Your task to perform on an android device: Open Youtube and go to the subscriptions tab Image 0: 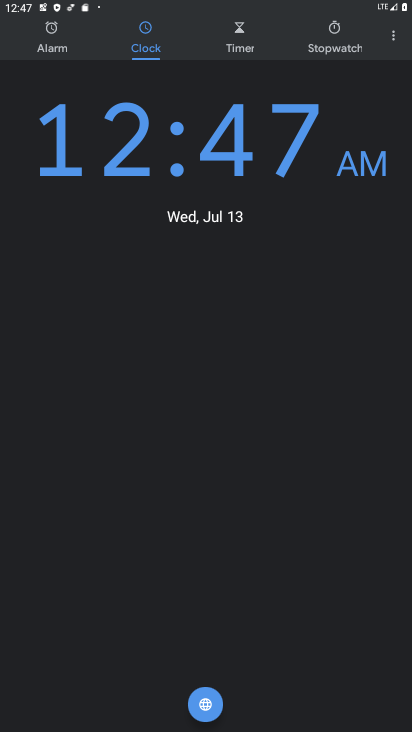
Step 0: press home button
Your task to perform on an android device: Open Youtube and go to the subscriptions tab Image 1: 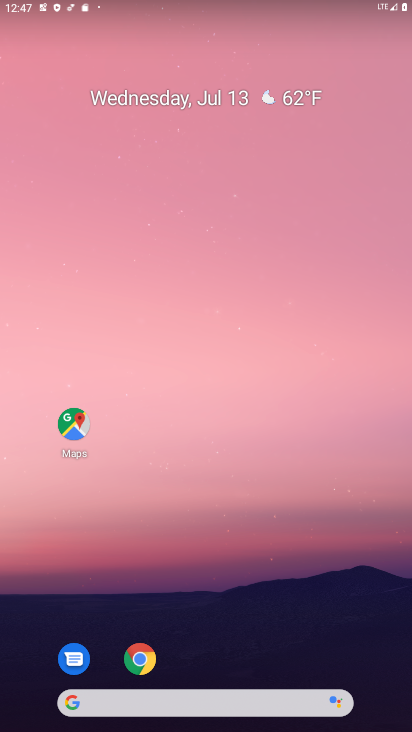
Step 1: drag from (217, 720) to (231, 59)
Your task to perform on an android device: Open Youtube and go to the subscriptions tab Image 2: 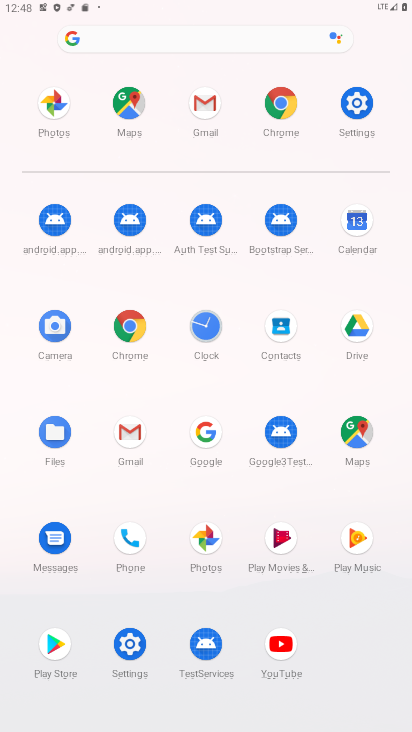
Step 2: click (284, 642)
Your task to perform on an android device: Open Youtube and go to the subscriptions tab Image 3: 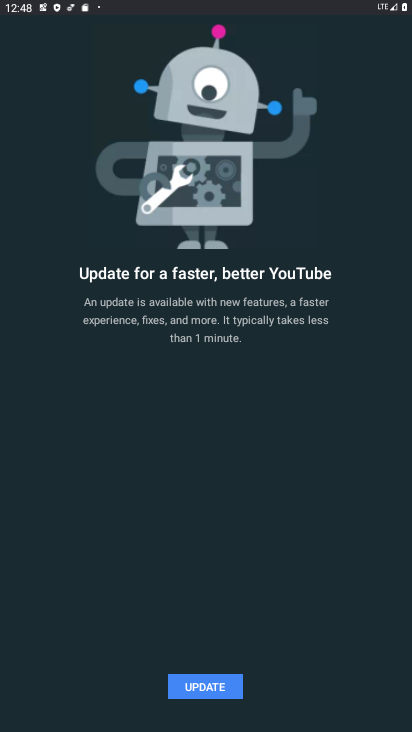
Step 3: task complete